Your task to perform on an android device: turn off priority inbox in the gmail app Image 0: 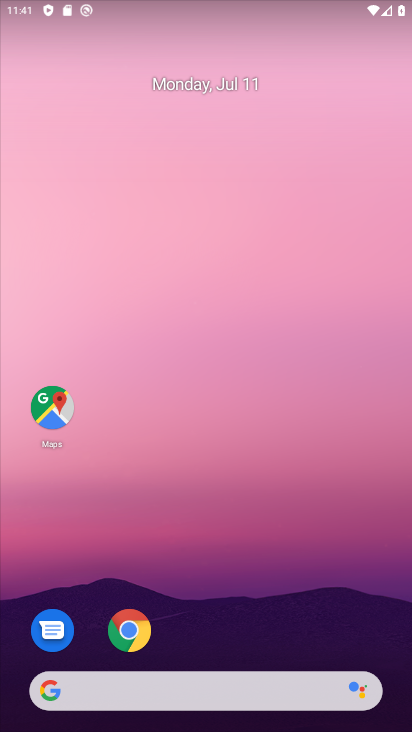
Step 0: drag from (214, 636) to (281, 165)
Your task to perform on an android device: turn off priority inbox in the gmail app Image 1: 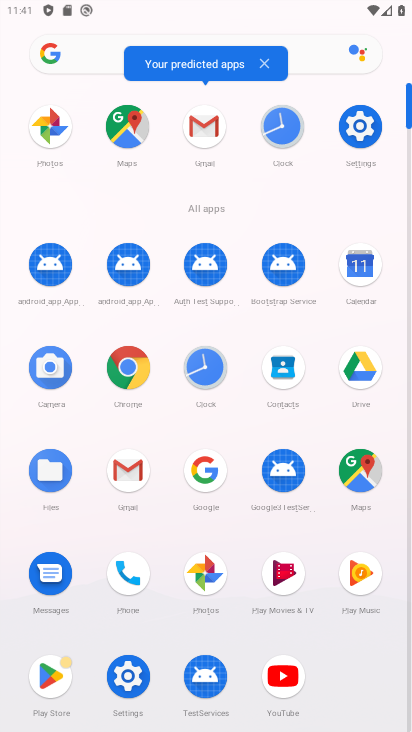
Step 1: click (205, 130)
Your task to perform on an android device: turn off priority inbox in the gmail app Image 2: 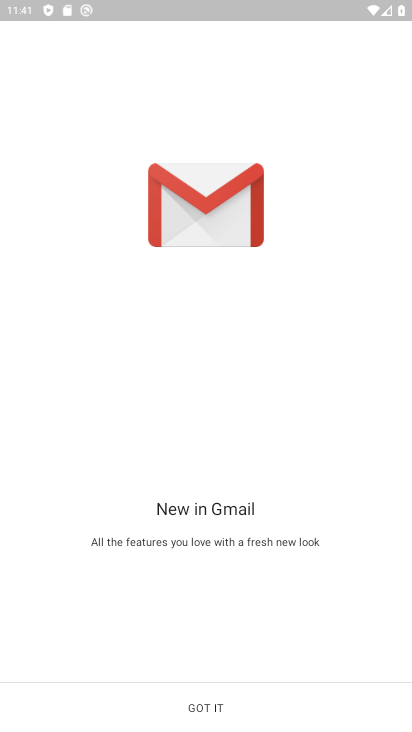
Step 2: click (199, 700)
Your task to perform on an android device: turn off priority inbox in the gmail app Image 3: 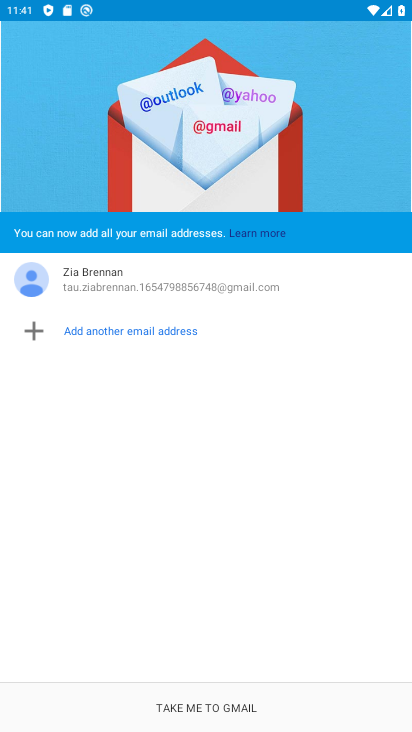
Step 3: click (199, 700)
Your task to perform on an android device: turn off priority inbox in the gmail app Image 4: 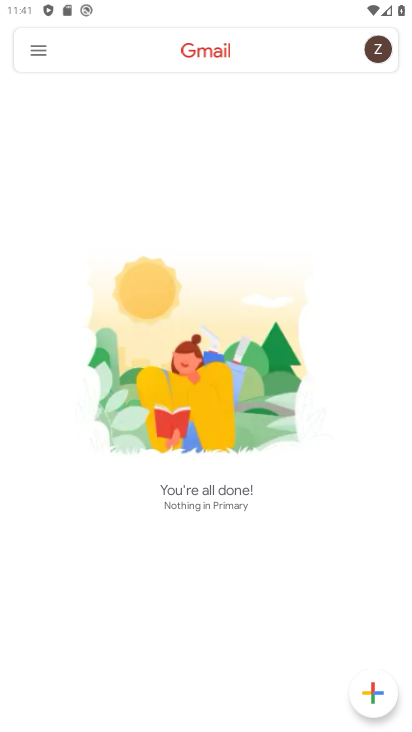
Step 4: click (41, 53)
Your task to perform on an android device: turn off priority inbox in the gmail app Image 5: 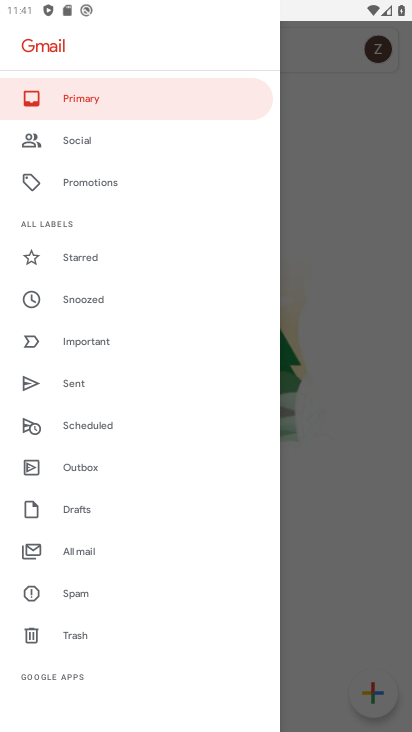
Step 5: drag from (102, 633) to (112, 477)
Your task to perform on an android device: turn off priority inbox in the gmail app Image 6: 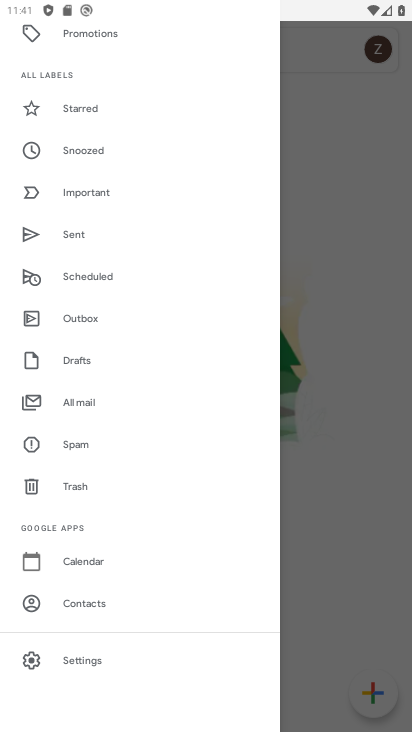
Step 6: click (69, 661)
Your task to perform on an android device: turn off priority inbox in the gmail app Image 7: 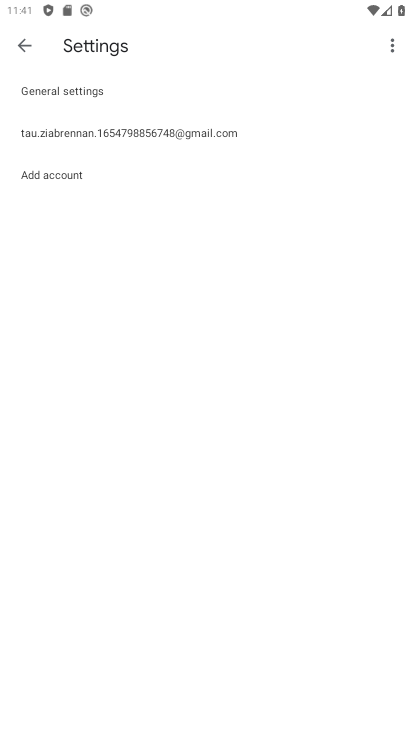
Step 7: click (149, 127)
Your task to perform on an android device: turn off priority inbox in the gmail app Image 8: 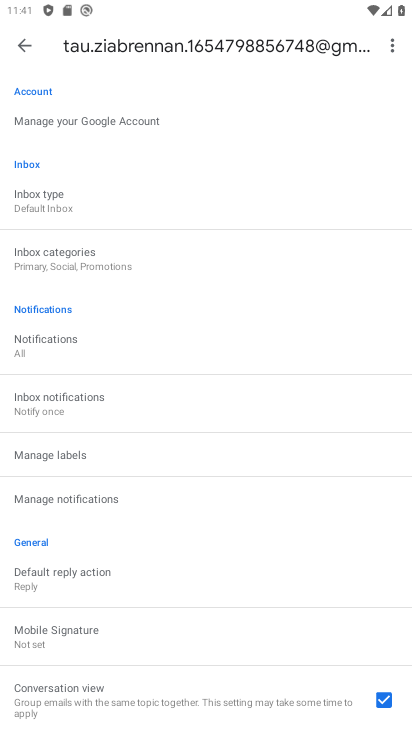
Step 8: click (56, 201)
Your task to perform on an android device: turn off priority inbox in the gmail app Image 9: 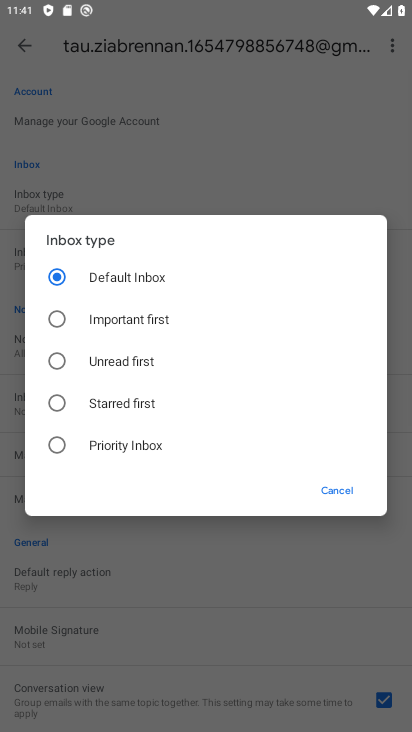
Step 9: click (51, 440)
Your task to perform on an android device: turn off priority inbox in the gmail app Image 10: 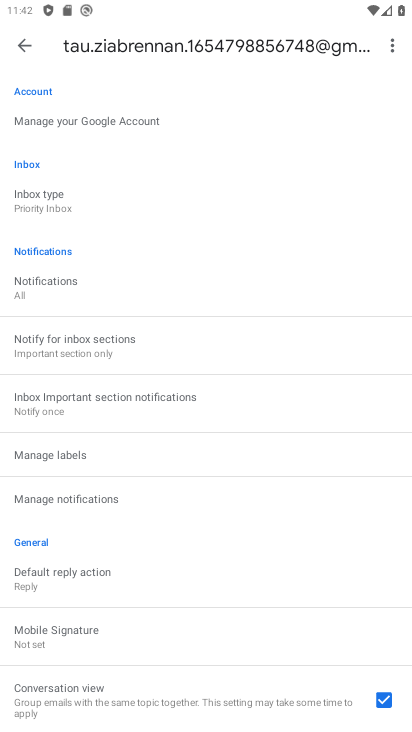
Step 10: task complete